Your task to perform on an android device: Open the stopwatch Image 0: 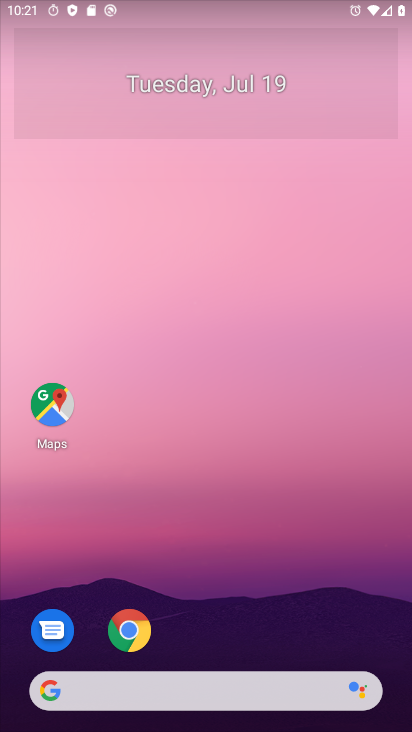
Step 0: press home button
Your task to perform on an android device: Open the stopwatch Image 1: 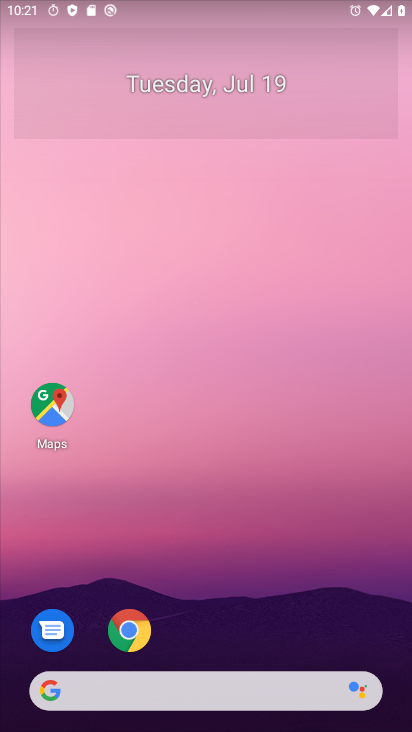
Step 1: drag from (285, 629) to (232, 83)
Your task to perform on an android device: Open the stopwatch Image 2: 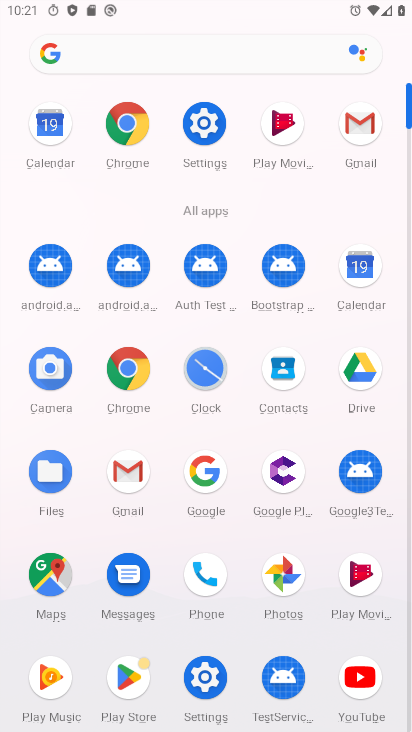
Step 2: click (197, 381)
Your task to perform on an android device: Open the stopwatch Image 3: 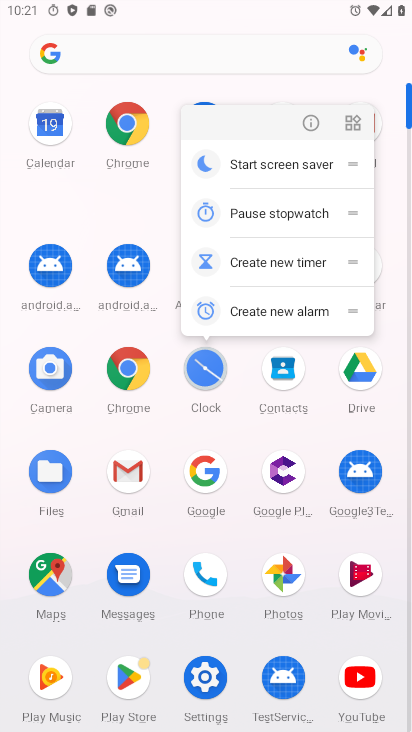
Step 3: click (196, 368)
Your task to perform on an android device: Open the stopwatch Image 4: 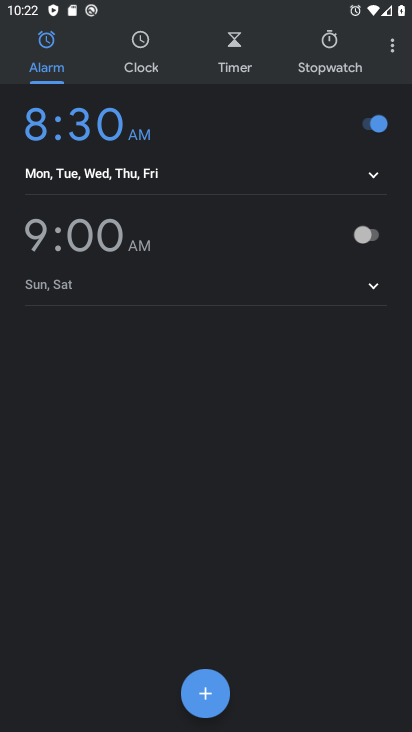
Step 4: click (328, 49)
Your task to perform on an android device: Open the stopwatch Image 5: 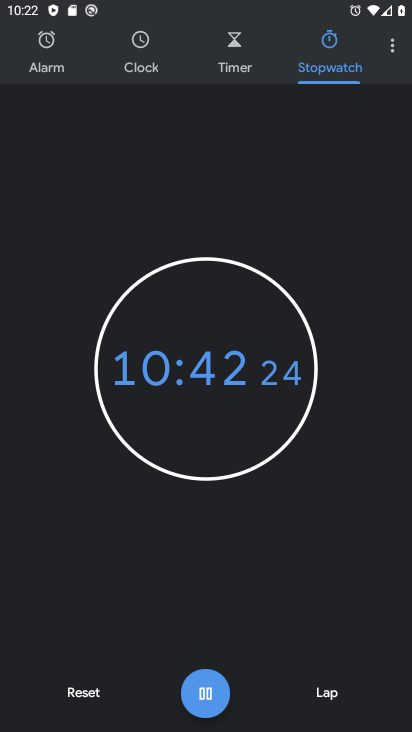
Step 5: click (209, 709)
Your task to perform on an android device: Open the stopwatch Image 6: 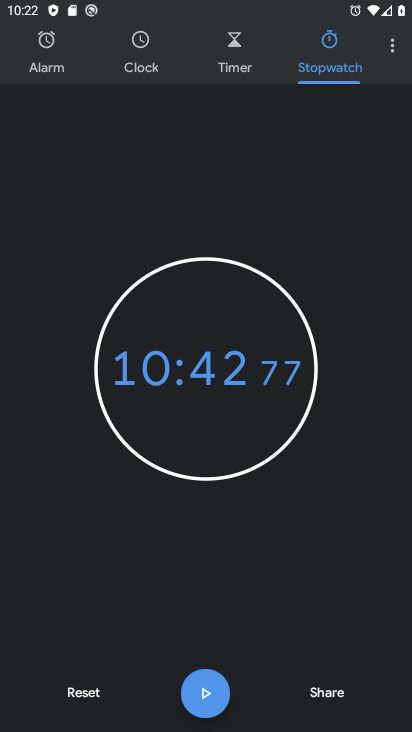
Step 6: task complete